Your task to perform on an android device: turn notification dots on Image 0: 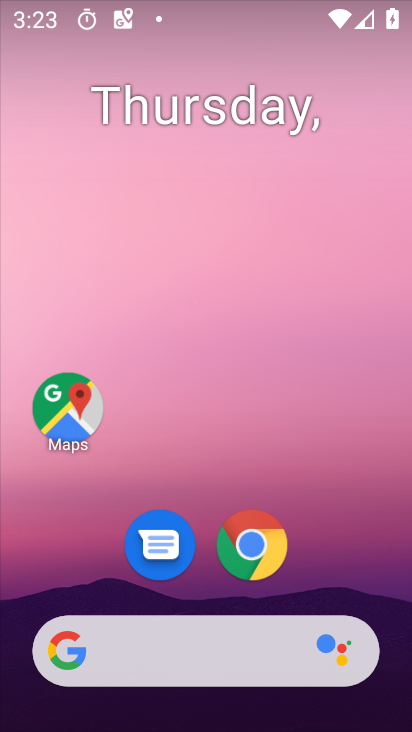
Step 0: drag from (147, 563) to (142, 136)
Your task to perform on an android device: turn notification dots on Image 1: 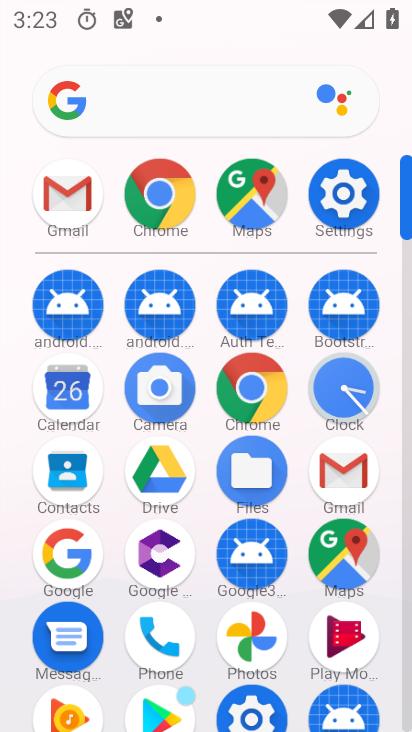
Step 1: click (338, 190)
Your task to perform on an android device: turn notification dots on Image 2: 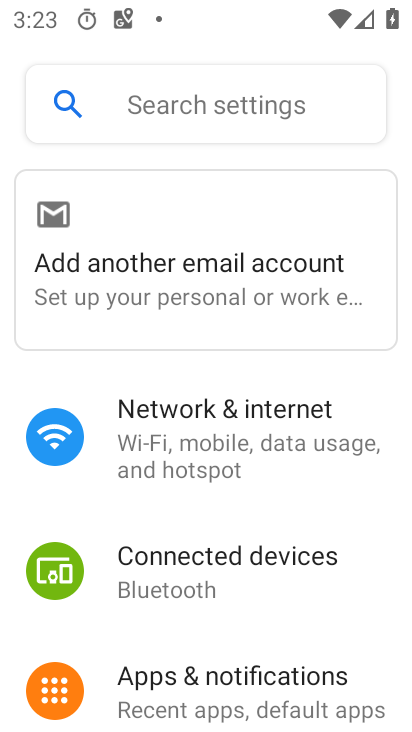
Step 2: click (196, 685)
Your task to perform on an android device: turn notification dots on Image 3: 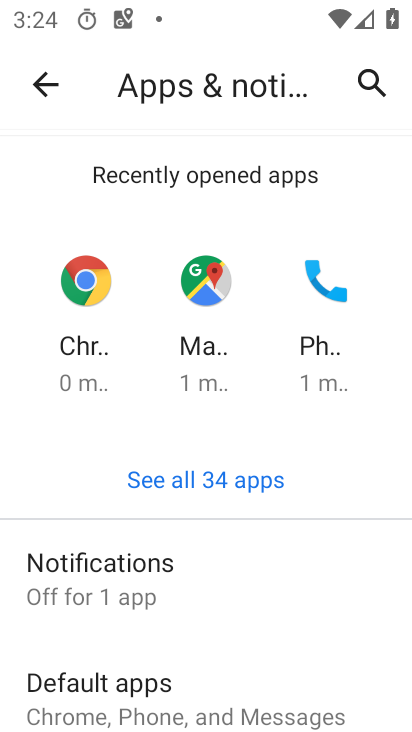
Step 3: click (77, 585)
Your task to perform on an android device: turn notification dots on Image 4: 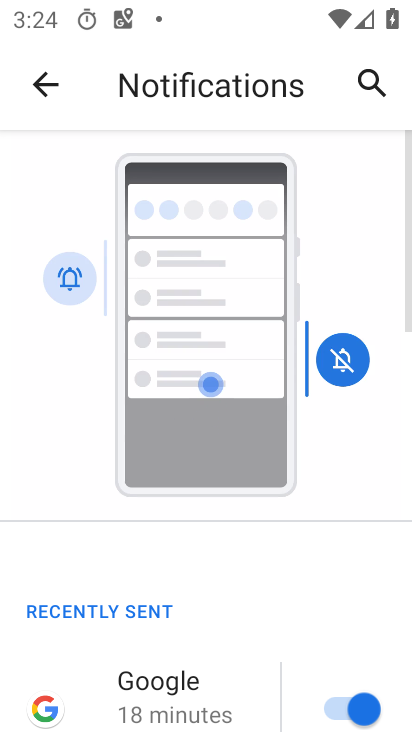
Step 4: drag from (222, 697) to (243, 321)
Your task to perform on an android device: turn notification dots on Image 5: 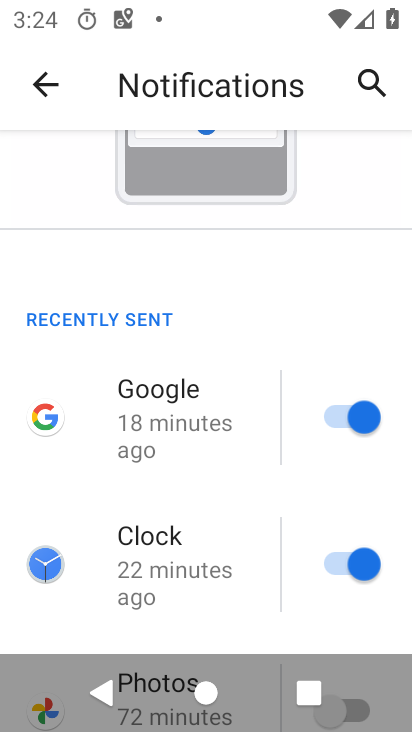
Step 5: drag from (209, 628) to (210, 345)
Your task to perform on an android device: turn notification dots on Image 6: 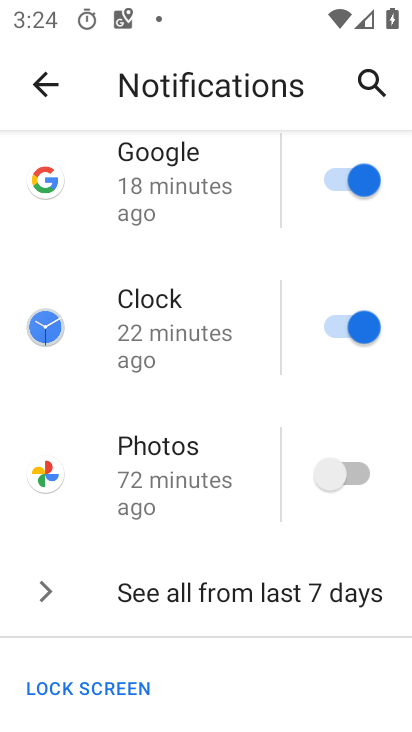
Step 6: drag from (191, 695) to (195, 297)
Your task to perform on an android device: turn notification dots on Image 7: 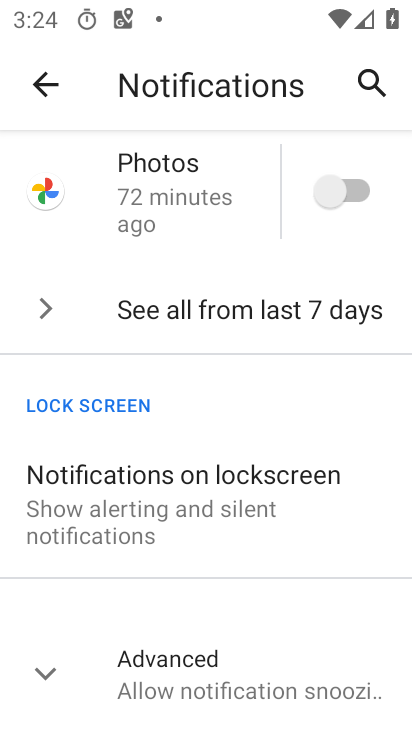
Step 7: click (188, 655)
Your task to perform on an android device: turn notification dots on Image 8: 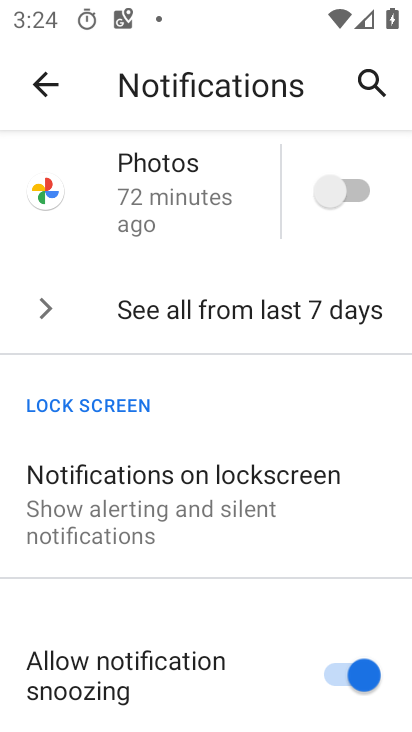
Step 8: task complete